Your task to perform on an android device: turn off javascript in the chrome app Image 0: 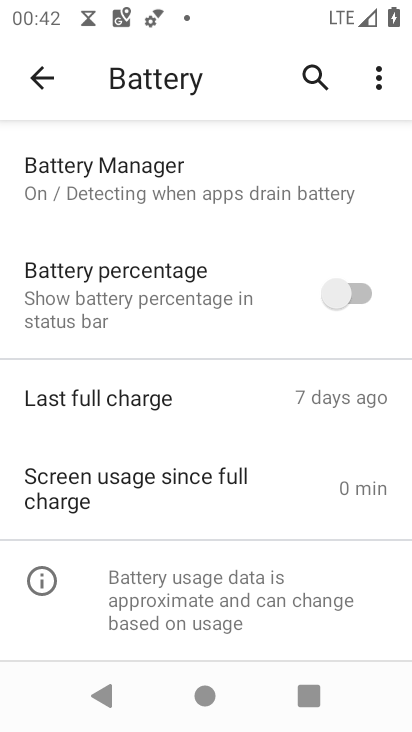
Step 0: press home button
Your task to perform on an android device: turn off javascript in the chrome app Image 1: 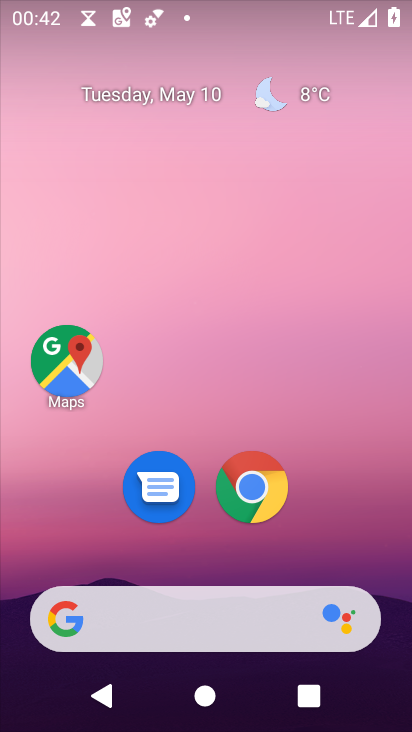
Step 1: click (253, 482)
Your task to perform on an android device: turn off javascript in the chrome app Image 2: 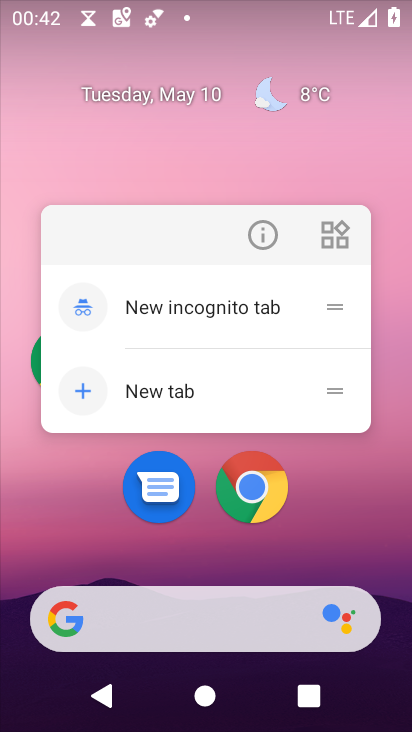
Step 2: click (254, 482)
Your task to perform on an android device: turn off javascript in the chrome app Image 3: 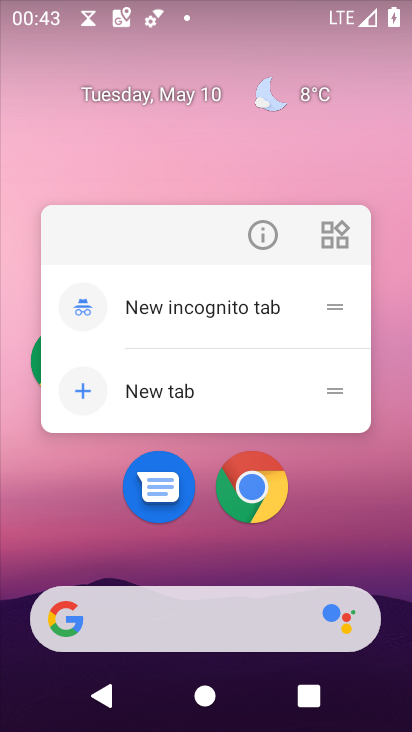
Step 3: click (300, 530)
Your task to perform on an android device: turn off javascript in the chrome app Image 4: 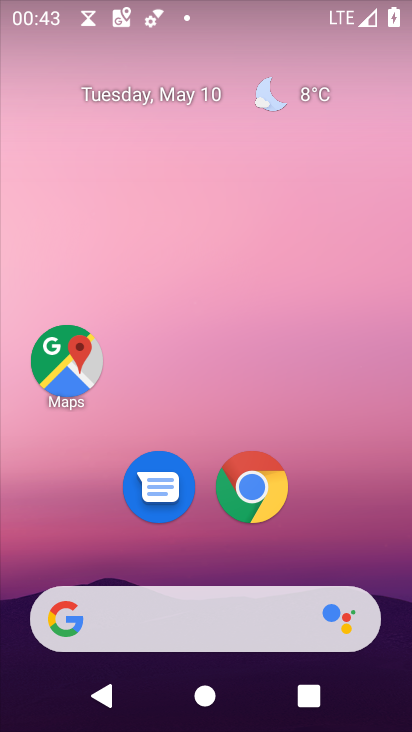
Step 4: click (247, 482)
Your task to perform on an android device: turn off javascript in the chrome app Image 5: 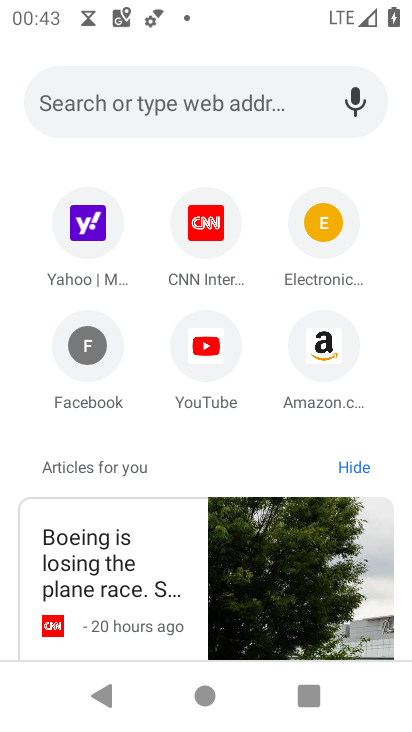
Step 5: drag from (278, 176) to (245, 510)
Your task to perform on an android device: turn off javascript in the chrome app Image 6: 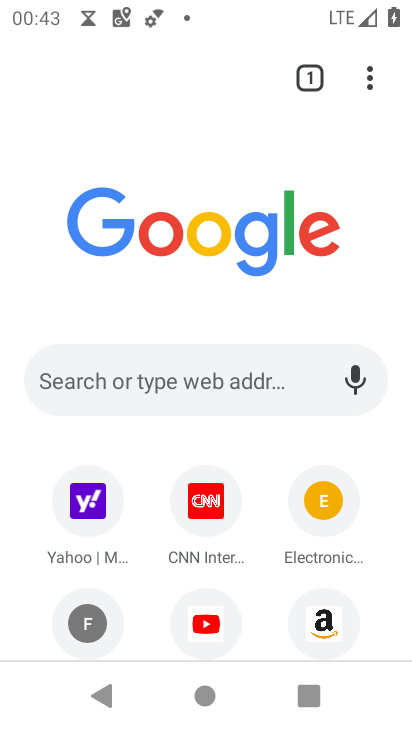
Step 6: click (366, 75)
Your task to perform on an android device: turn off javascript in the chrome app Image 7: 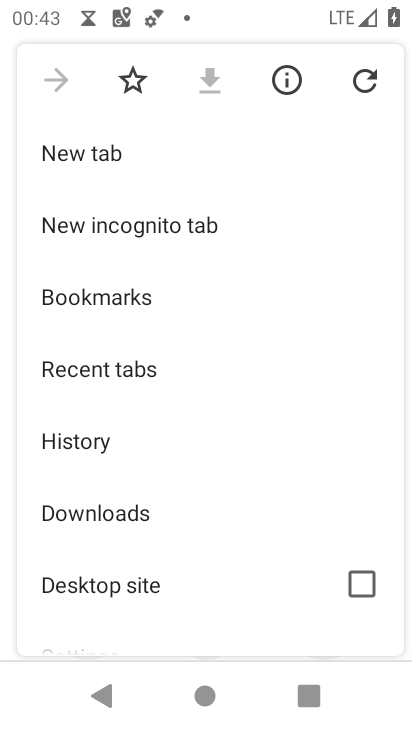
Step 7: drag from (185, 585) to (192, 190)
Your task to perform on an android device: turn off javascript in the chrome app Image 8: 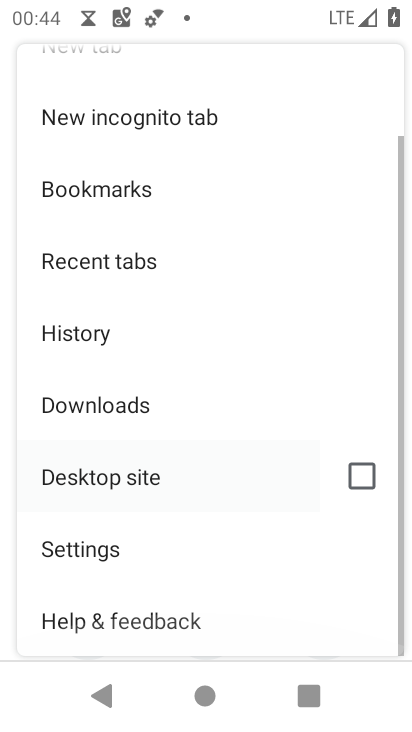
Step 8: click (199, 123)
Your task to perform on an android device: turn off javascript in the chrome app Image 9: 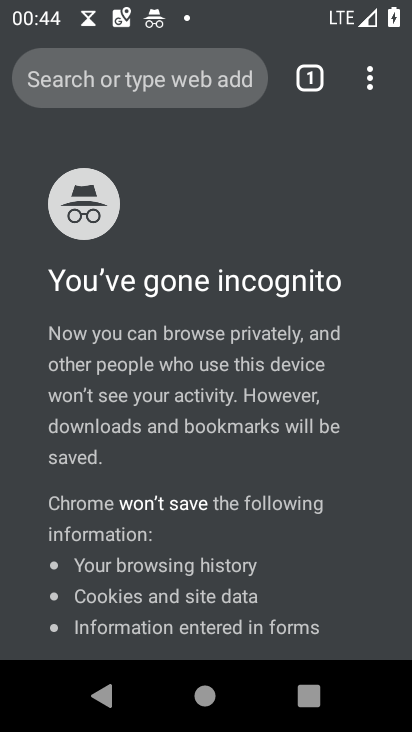
Step 9: click (369, 76)
Your task to perform on an android device: turn off javascript in the chrome app Image 10: 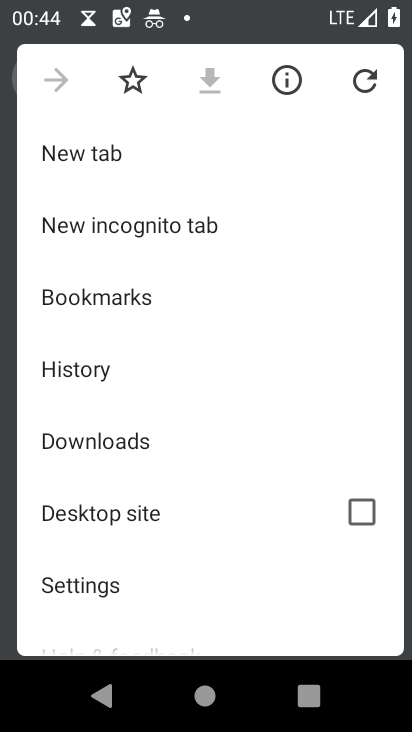
Step 10: drag from (139, 585) to (140, 119)
Your task to perform on an android device: turn off javascript in the chrome app Image 11: 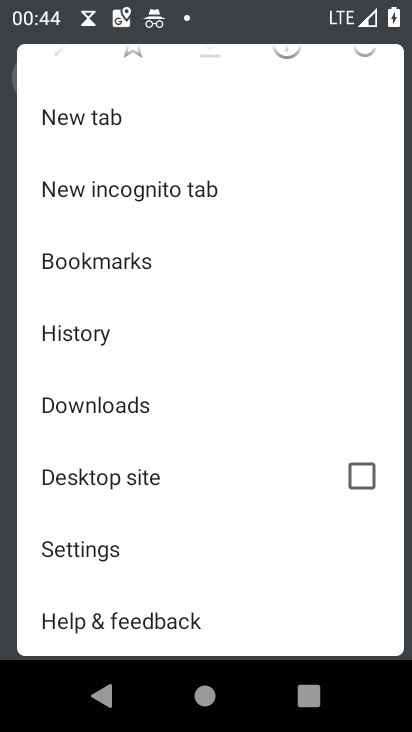
Step 11: click (131, 550)
Your task to perform on an android device: turn off javascript in the chrome app Image 12: 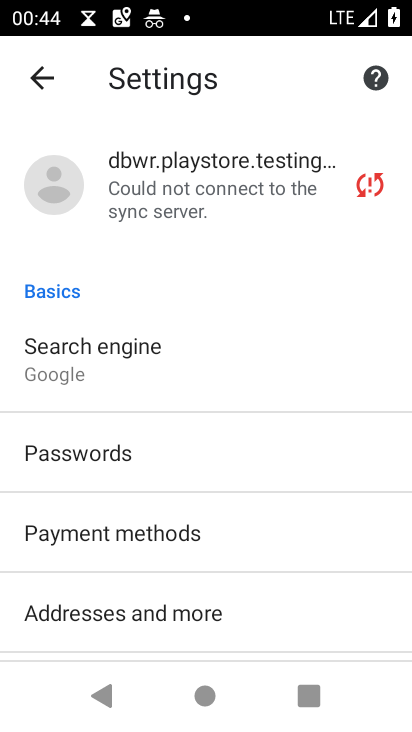
Step 12: drag from (237, 604) to (244, 171)
Your task to perform on an android device: turn off javascript in the chrome app Image 13: 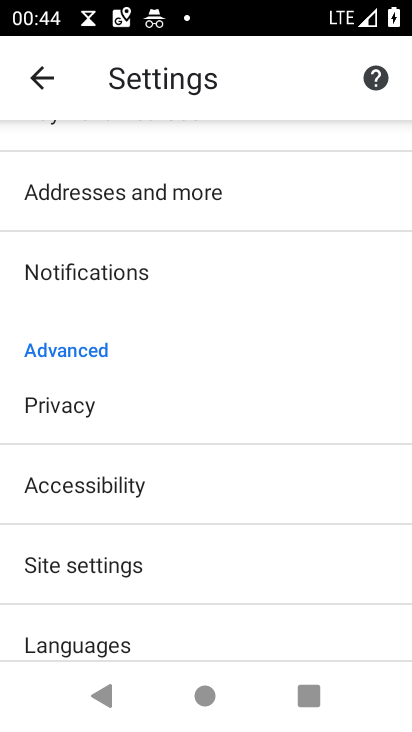
Step 13: click (162, 562)
Your task to perform on an android device: turn off javascript in the chrome app Image 14: 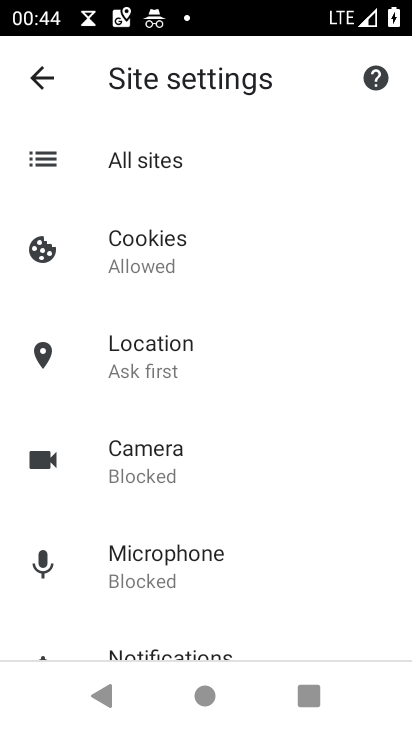
Step 14: drag from (212, 621) to (198, 198)
Your task to perform on an android device: turn off javascript in the chrome app Image 15: 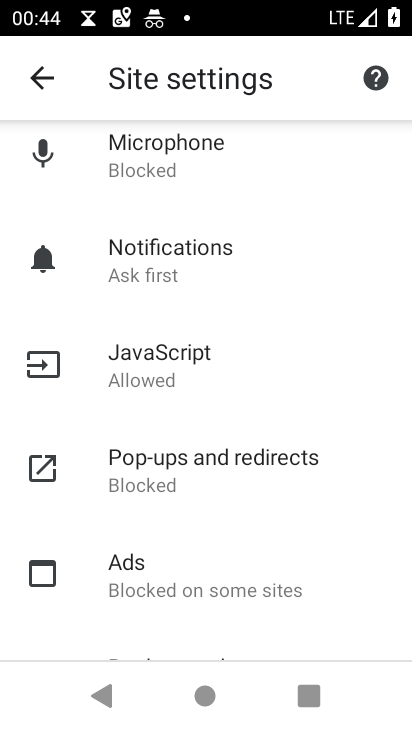
Step 15: click (188, 367)
Your task to perform on an android device: turn off javascript in the chrome app Image 16: 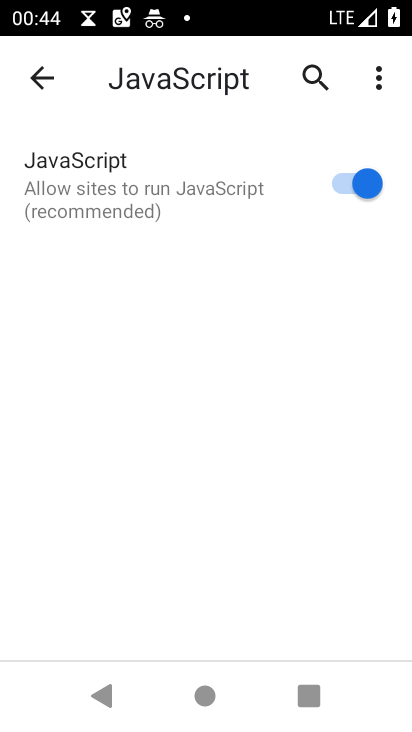
Step 16: click (350, 176)
Your task to perform on an android device: turn off javascript in the chrome app Image 17: 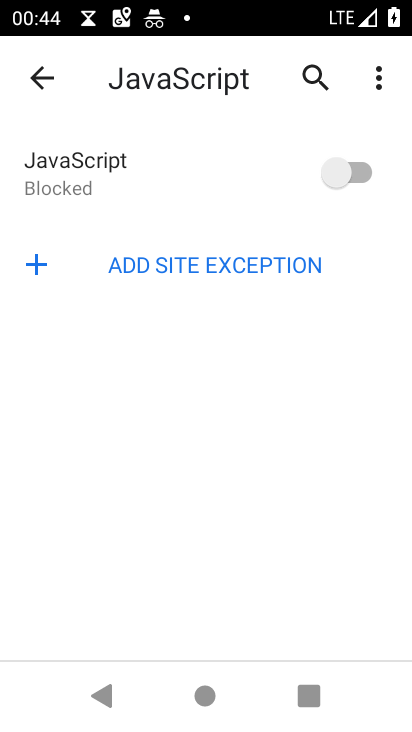
Step 17: task complete